Your task to perform on an android device: Turn off the flashlight Image 0: 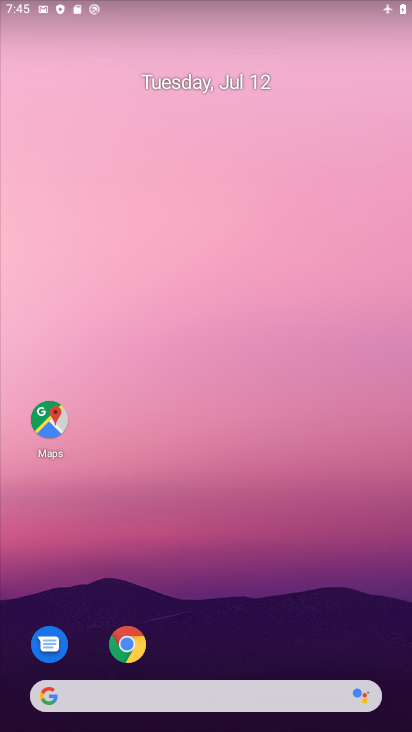
Step 0: drag from (218, 657) to (200, 175)
Your task to perform on an android device: Turn off the flashlight Image 1: 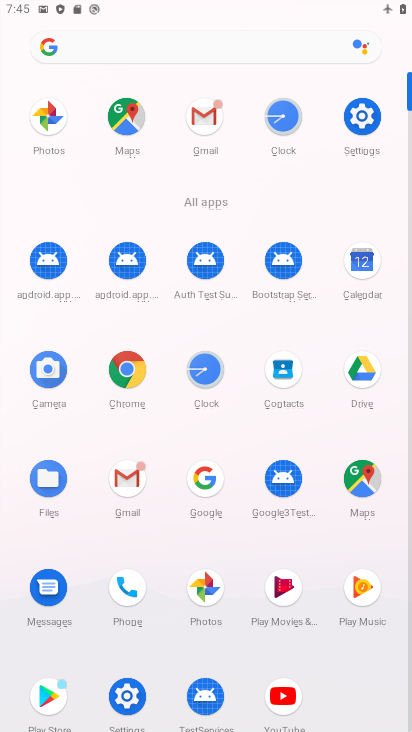
Step 1: click (379, 109)
Your task to perform on an android device: Turn off the flashlight Image 2: 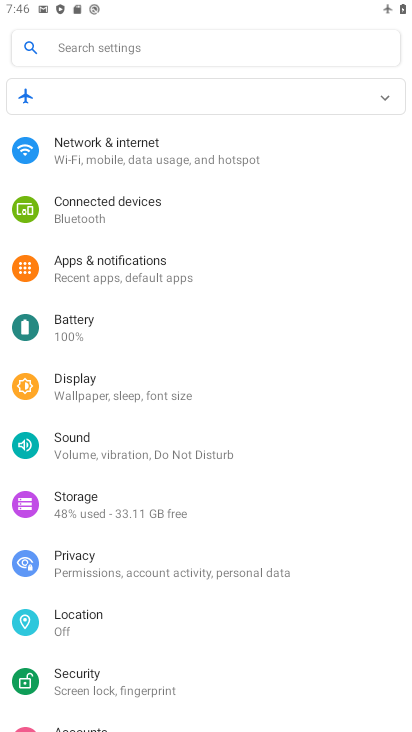
Step 2: task complete